Your task to perform on an android device: Go to ESPN.com Image 0: 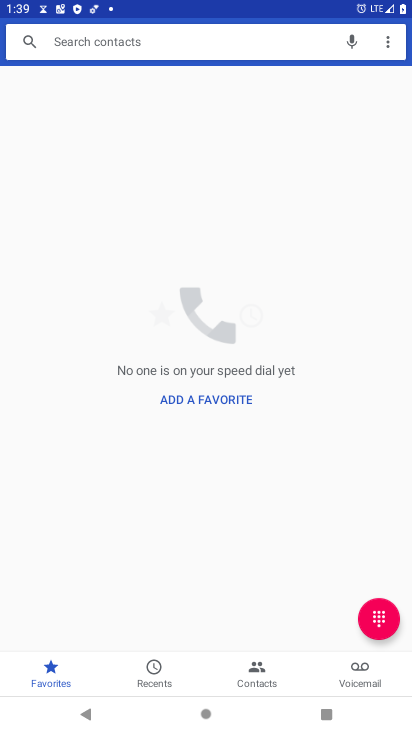
Step 0: press home button
Your task to perform on an android device: Go to ESPN.com Image 1: 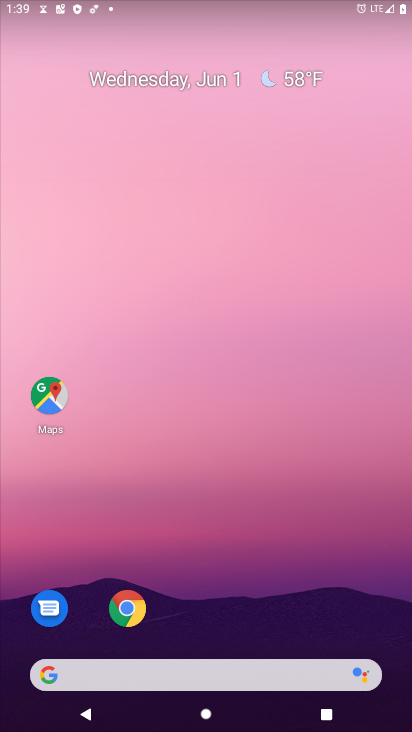
Step 1: click (116, 616)
Your task to perform on an android device: Go to ESPN.com Image 2: 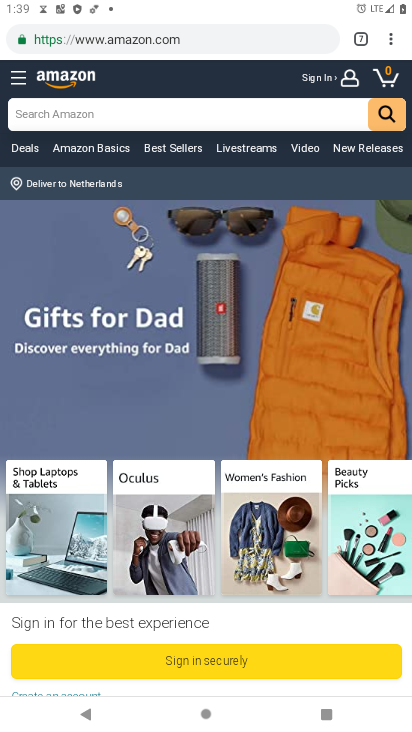
Step 2: click (372, 43)
Your task to perform on an android device: Go to ESPN.com Image 3: 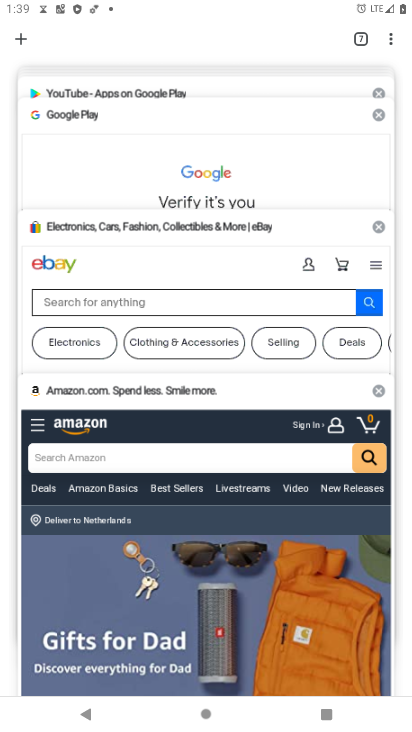
Step 3: drag from (283, 177) to (313, 528)
Your task to perform on an android device: Go to ESPN.com Image 4: 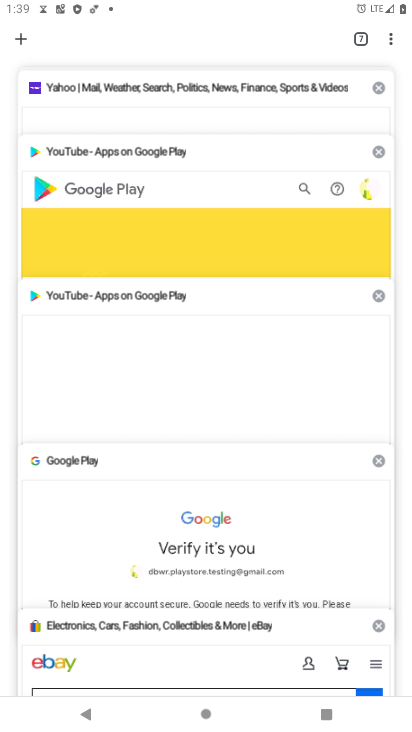
Step 4: drag from (301, 162) to (290, 588)
Your task to perform on an android device: Go to ESPN.com Image 5: 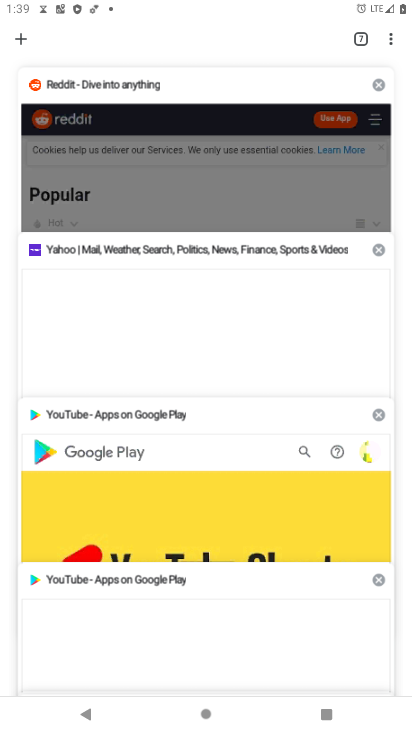
Step 5: drag from (205, 87) to (212, 540)
Your task to perform on an android device: Go to ESPN.com Image 6: 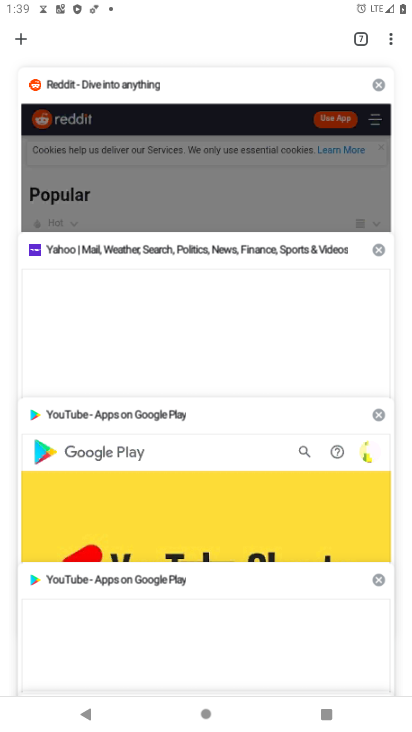
Step 6: drag from (212, 540) to (239, 118)
Your task to perform on an android device: Go to ESPN.com Image 7: 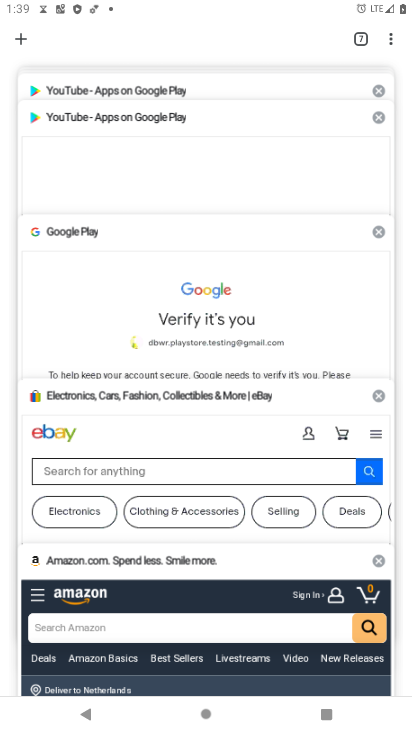
Step 7: drag from (262, 463) to (311, 108)
Your task to perform on an android device: Go to ESPN.com Image 8: 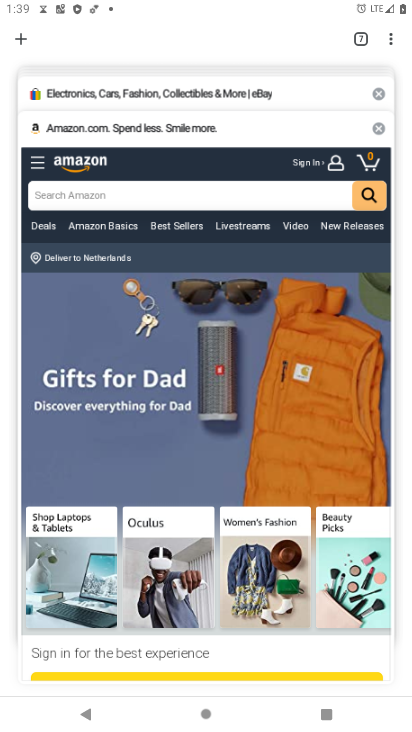
Step 8: drag from (248, 553) to (240, 140)
Your task to perform on an android device: Go to ESPN.com Image 9: 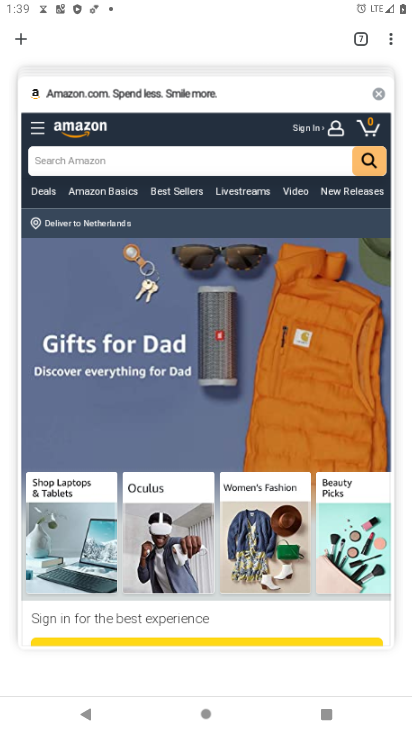
Step 9: click (10, 32)
Your task to perform on an android device: Go to ESPN.com Image 10: 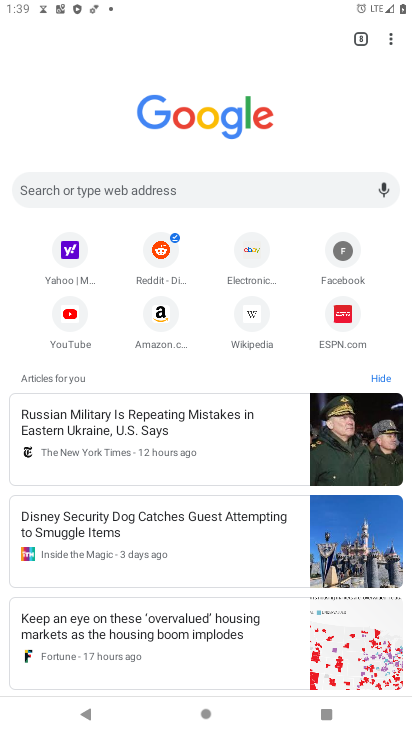
Step 10: click (349, 314)
Your task to perform on an android device: Go to ESPN.com Image 11: 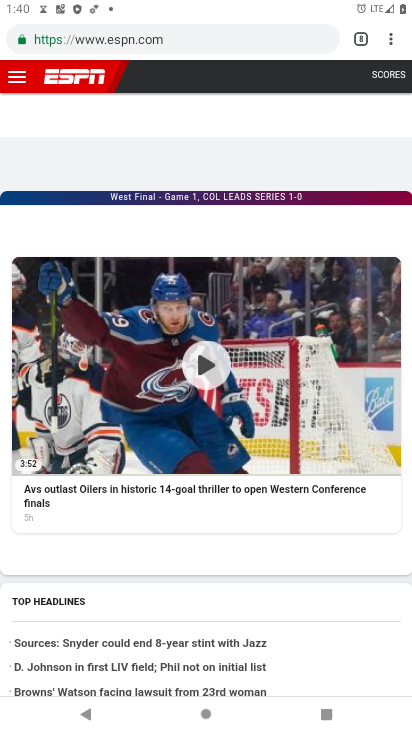
Step 11: task complete